Your task to perform on an android device: toggle location history Image 0: 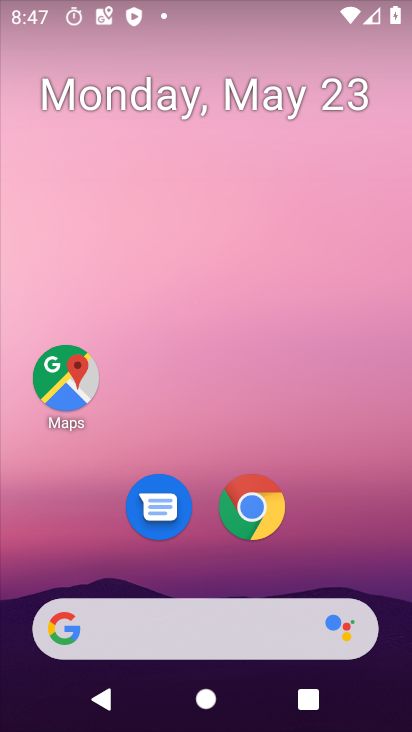
Step 0: drag from (342, 432) to (293, 0)
Your task to perform on an android device: toggle location history Image 1: 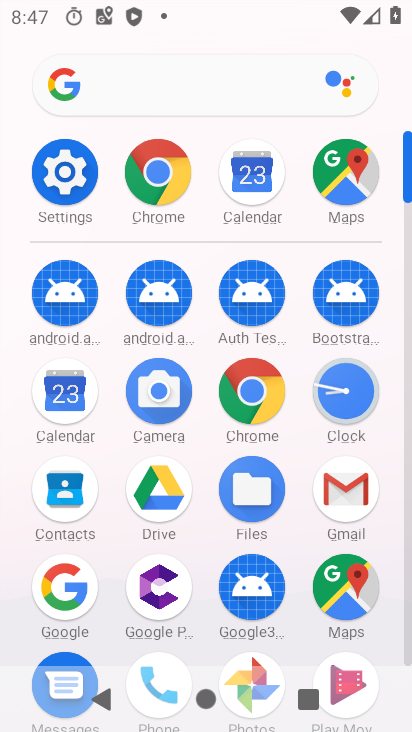
Step 1: click (73, 162)
Your task to perform on an android device: toggle location history Image 2: 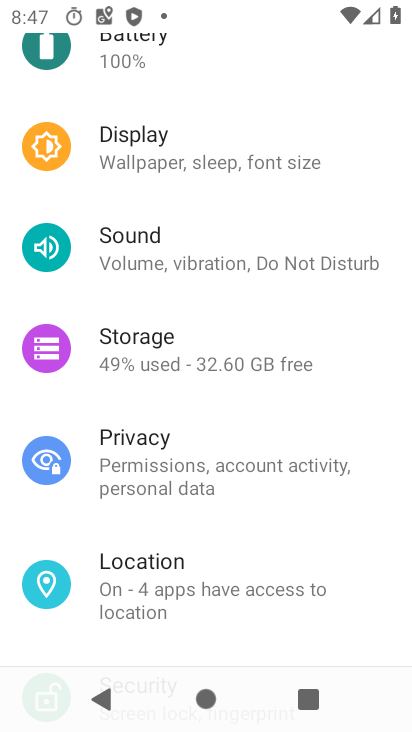
Step 2: click (142, 549)
Your task to perform on an android device: toggle location history Image 3: 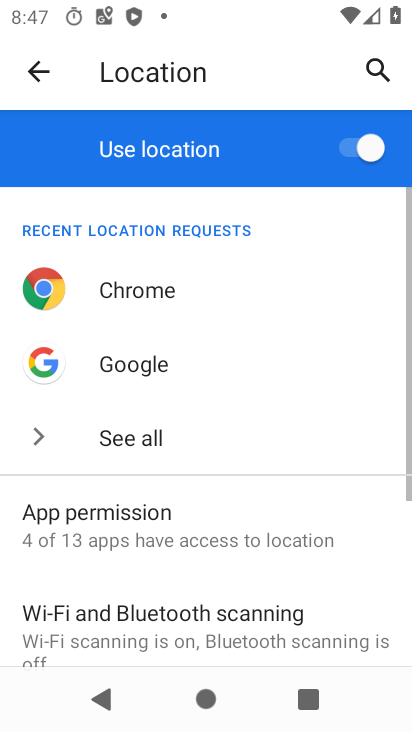
Step 3: drag from (198, 639) to (154, 194)
Your task to perform on an android device: toggle location history Image 4: 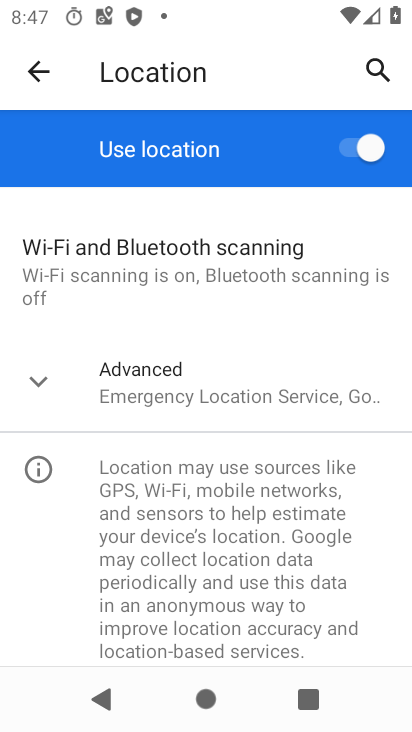
Step 4: drag from (182, 550) to (174, 368)
Your task to perform on an android device: toggle location history Image 5: 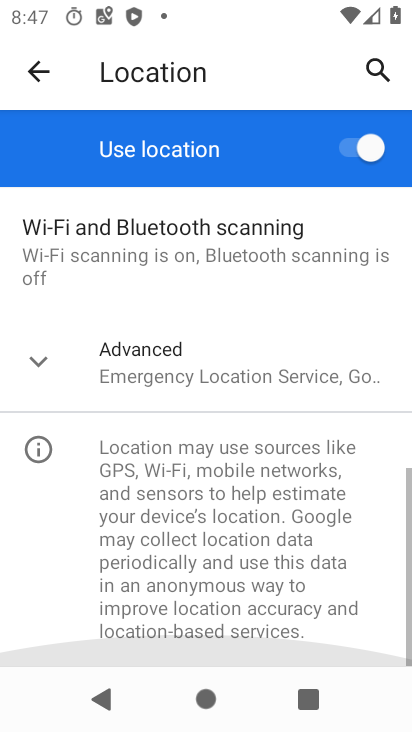
Step 5: click (174, 368)
Your task to perform on an android device: toggle location history Image 6: 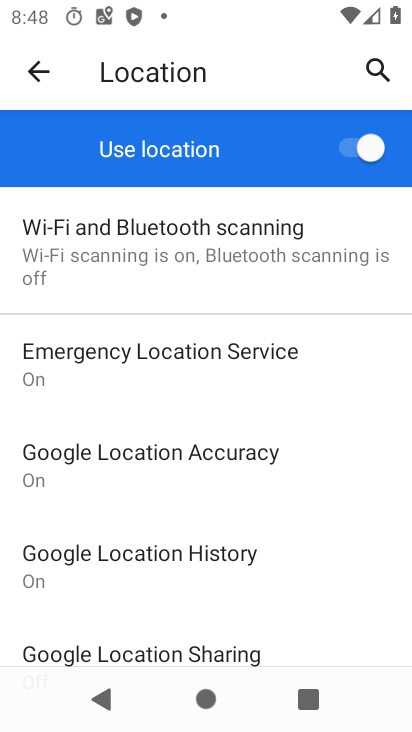
Step 6: click (139, 569)
Your task to perform on an android device: toggle location history Image 7: 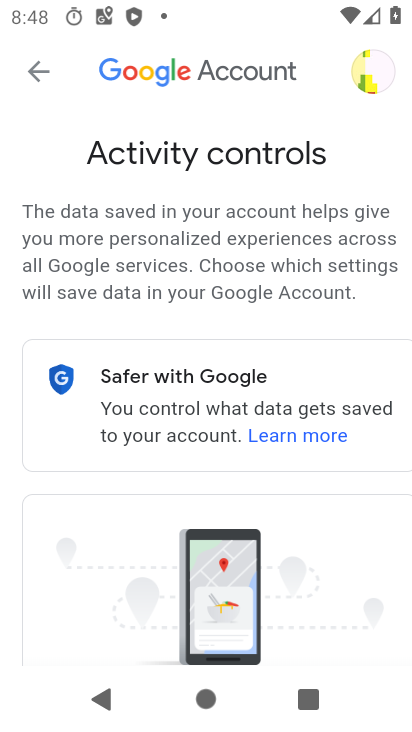
Step 7: drag from (138, 578) to (142, 207)
Your task to perform on an android device: toggle location history Image 8: 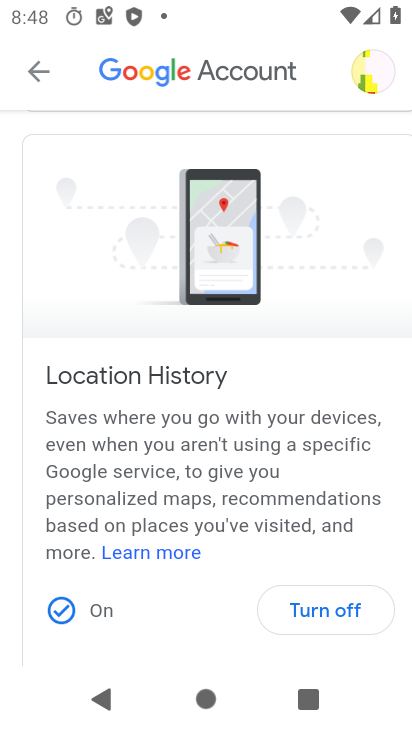
Step 8: click (325, 611)
Your task to perform on an android device: toggle location history Image 9: 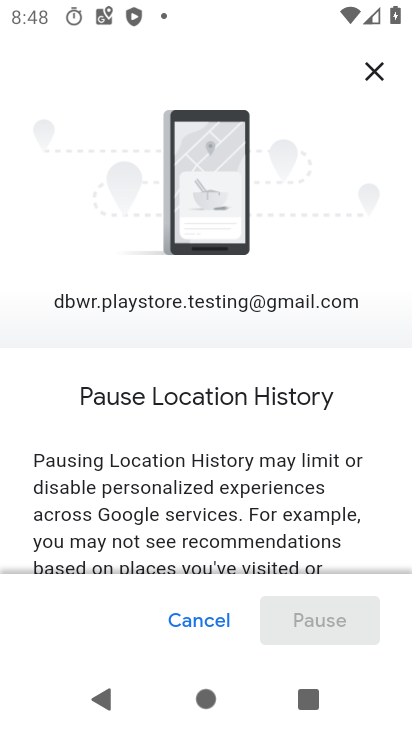
Step 9: drag from (277, 436) to (308, 126)
Your task to perform on an android device: toggle location history Image 10: 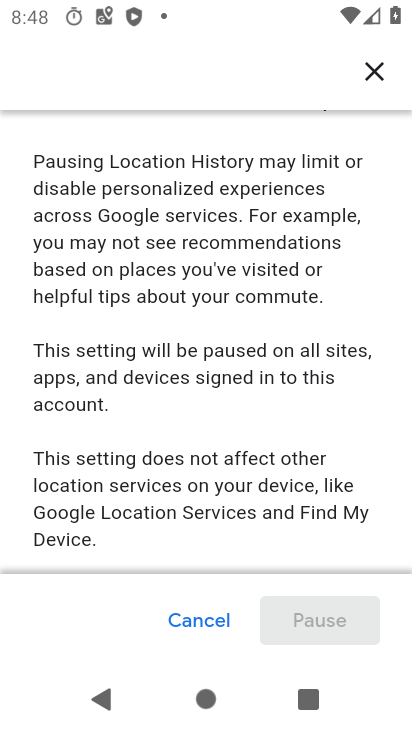
Step 10: drag from (271, 477) to (242, 55)
Your task to perform on an android device: toggle location history Image 11: 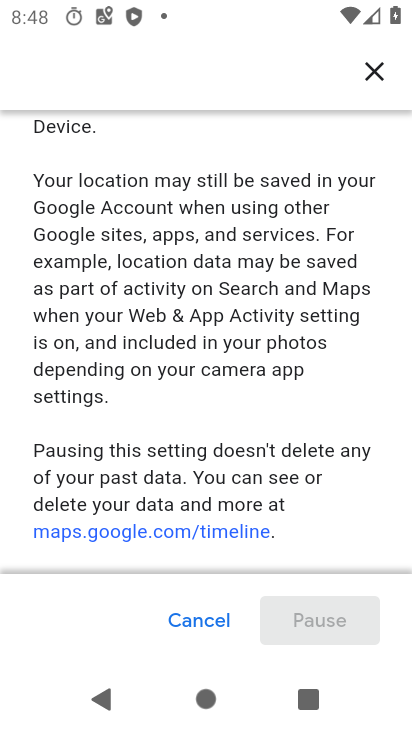
Step 11: drag from (291, 534) to (281, 78)
Your task to perform on an android device: toggle location history Image 12: 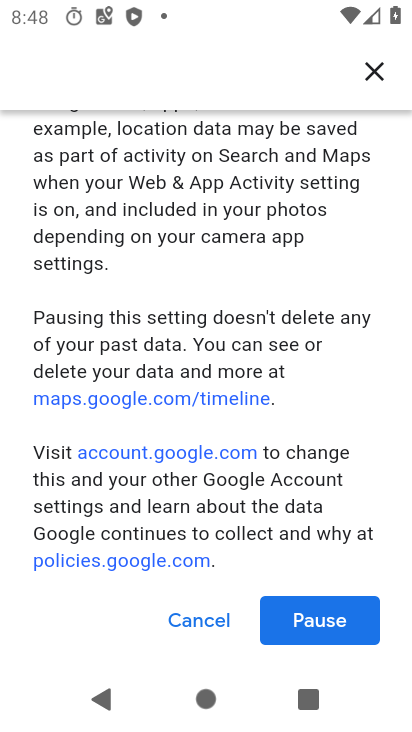
Step 12: click (338, 617)
Your task to perform on an android device: toggle location history Image 13: 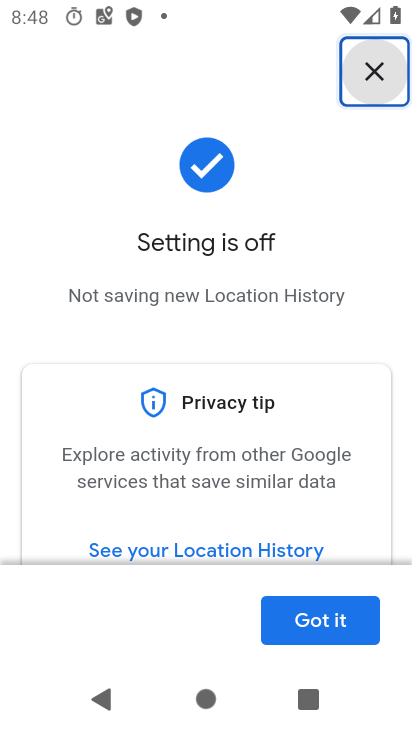
Step 13: click (338, 617)
Your task to perform on an android device: toggle location history Image 14: 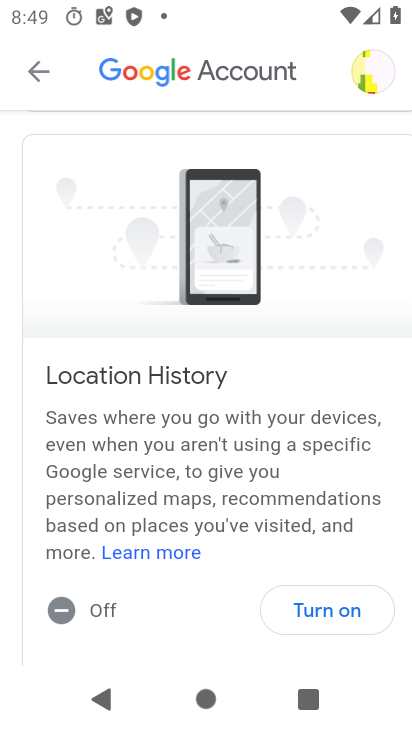
Step 14: task complete